Your task to perform on an android device: choose inbox layout in the gmail app Image 0: 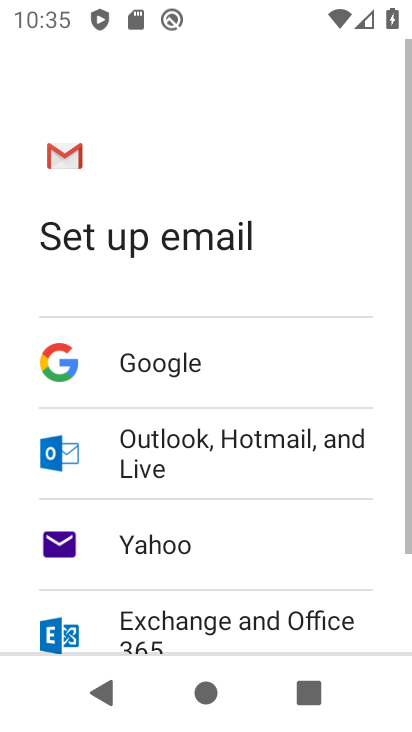
Step 0: press home button
Your task to perform on an android device: choose inbox layout in the gmail app Image 1: 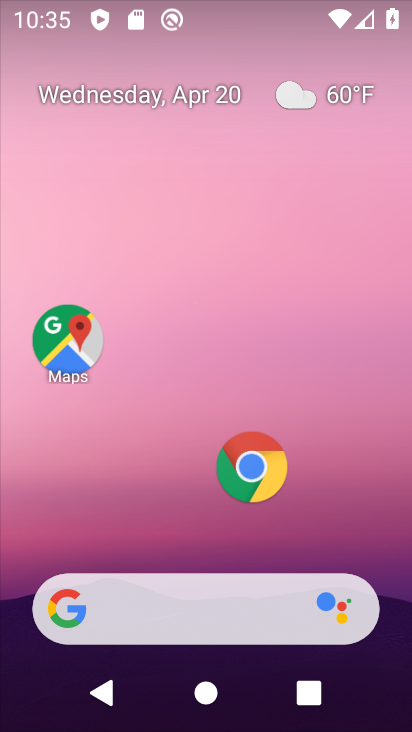
Step 1: drag from (274, 533) to (235, 74)
Your task to perform on an android device: choose inbox layout in the gmail app Image 2: 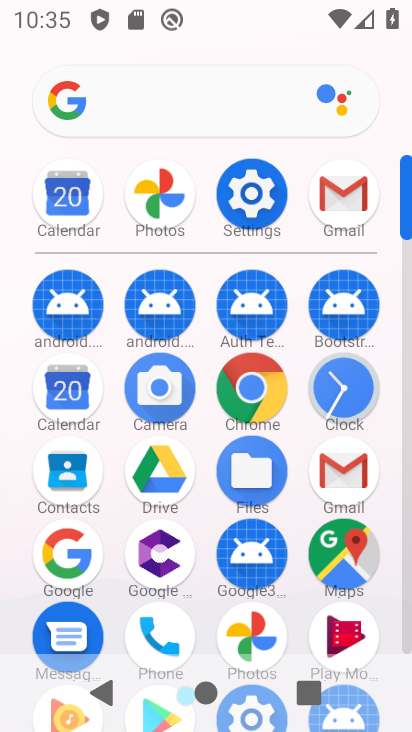
Step 2: click (338, 195)
Your task to perform on an android device: choose inbox layout in the gmail app Image 3: 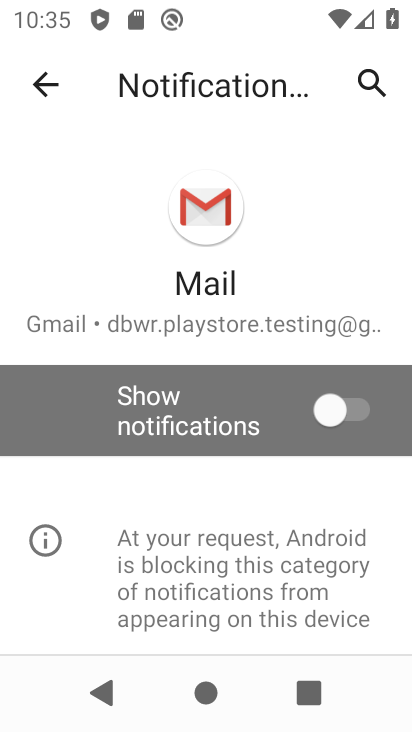
Step 3: click (30, 76)
Your task to perform on an android device: choose inbox layout in the gmail app Image 4: 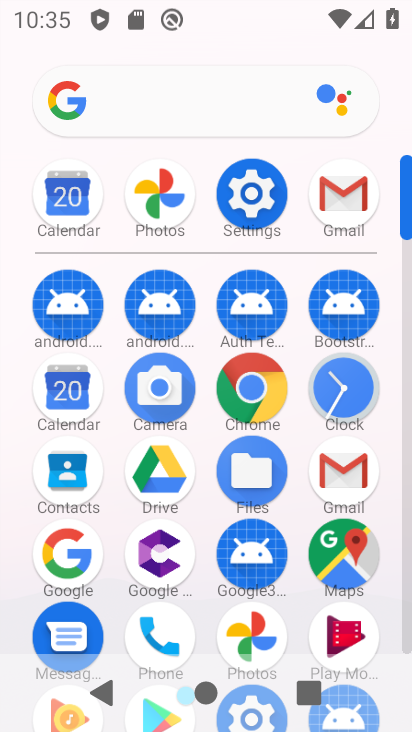
Step 4: click (353, 198)
Your task to perform on an android device: choose inbox layout in the gmail app Image 5: 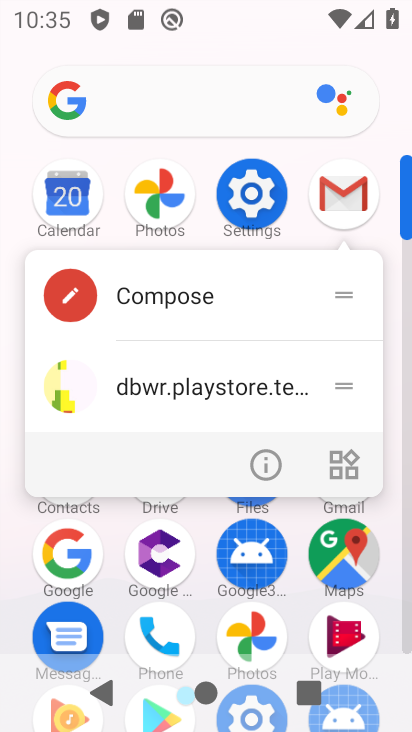
Step 5: click (353, 192)
Your task to perform on an android device: choose inbox layout in the gmail app Image 6: 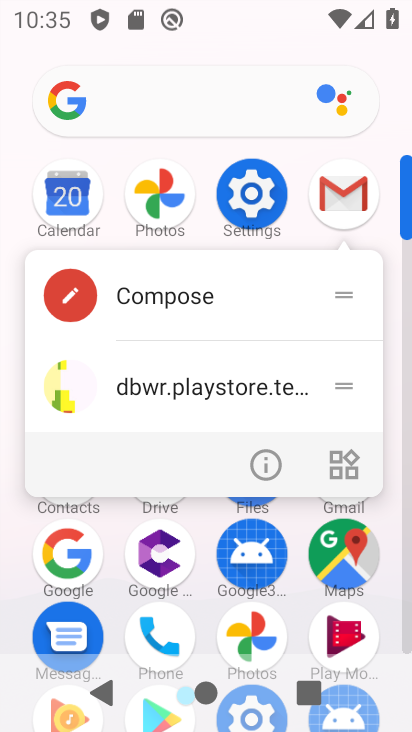
Step 6: click (353, 190)
Your task to perform on an android device: choose inbox layout in the gmail app Image 7: 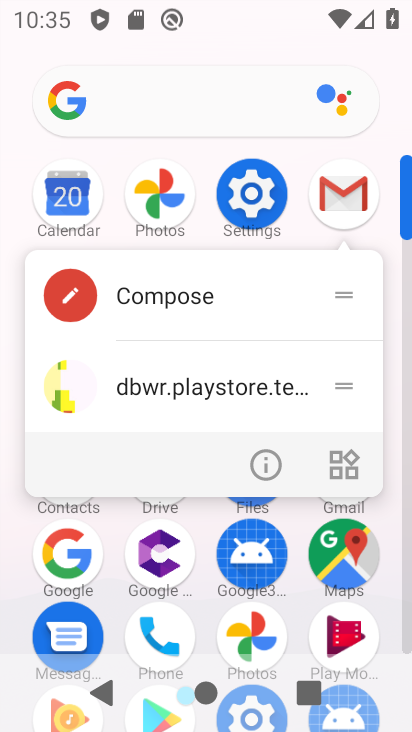
Step 7: click (353, 190)
Your task to perform on an android device: choose inbox layout in the gmail app Image 8: 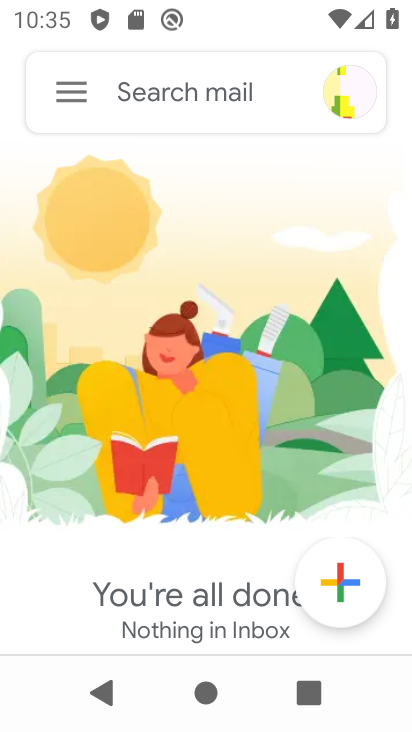
Step 8: click (75, 99)
Your task to perform on an android device: choose inbox layout in the gmail app Image 9: 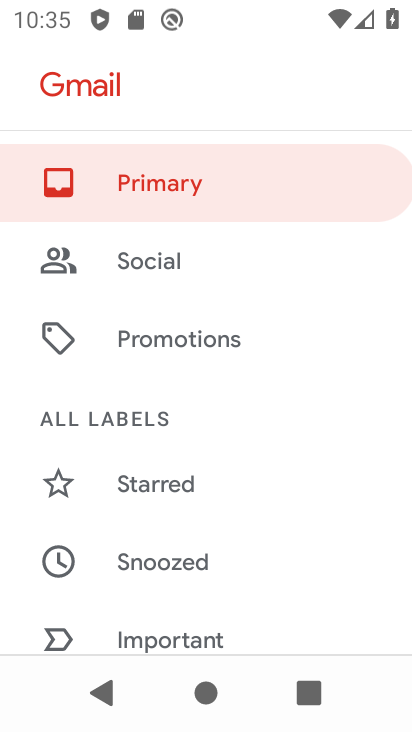
Step 9: drag from (203, 540) to (165, 374)
Your task to perform on an android device: choose inbox layout in the gmail app Image 10: 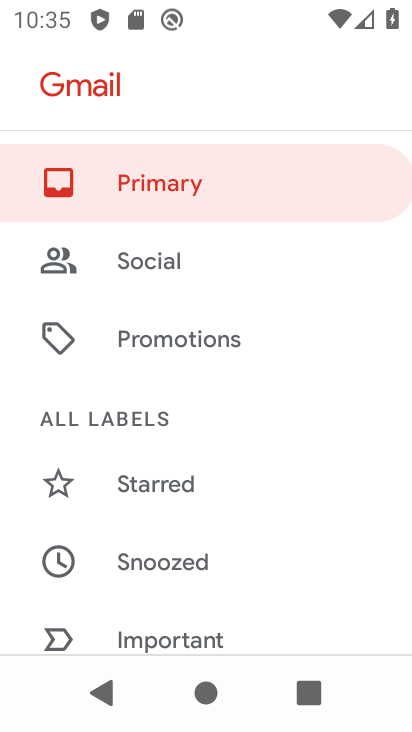
Step 10: drag from (168, 587) to (177, 388)
Your task to perform on an android device: choose inbox layout in the gmail app Image 11: 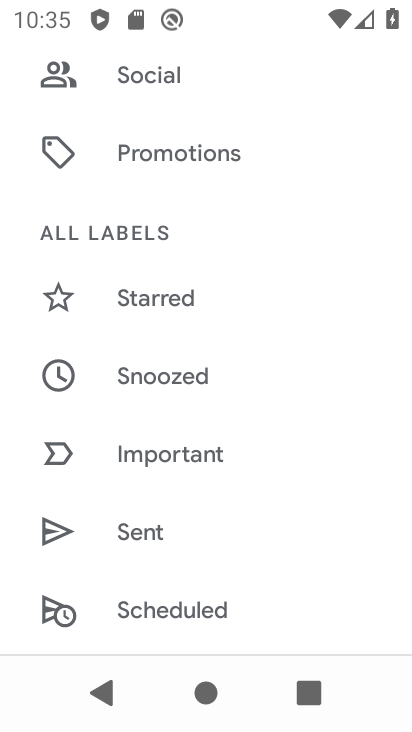
Step 11: drag from (206, 526) to (200, 450)
Your task to perform on an android device: choose inbox layout in the gmail app Image 12: 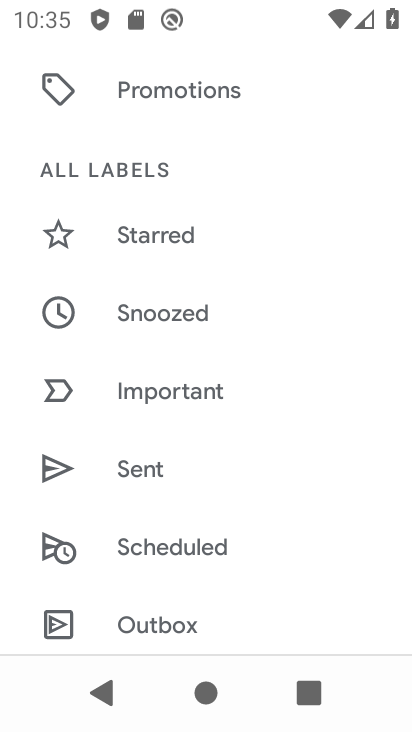
Step 12: drag from (206, 536) to (203, 449)
Your task to perform on an android device: choose inbox layout in the gmail app Image 13: 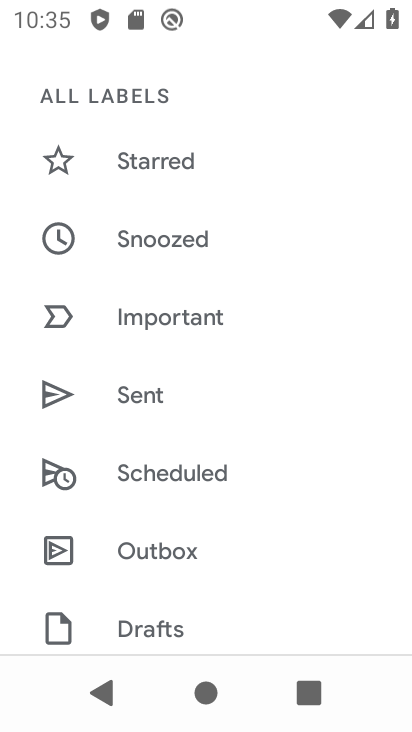
Step 13: drag from (220, 547) to (223, 449)
Your task to perform on an android device: choose inbox layout in the gmail app Image 14: 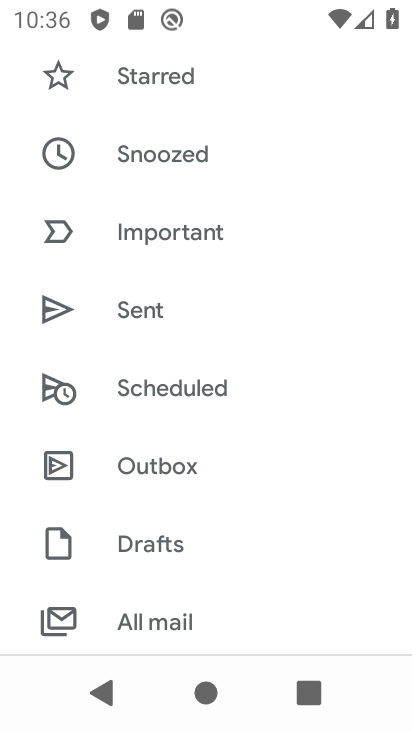
Step 14: drag from (251, 563) to (224, 467)
Your task to perform on an android device: choose inbox layout in the gmail app Image 15: 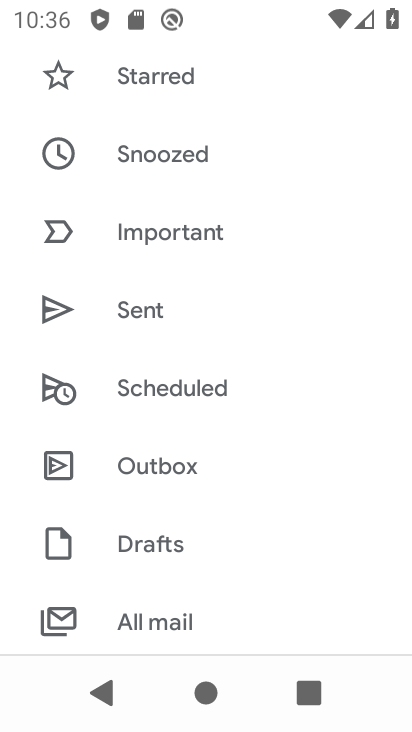
Step 15: drag from (246, 557) to (244, 487)
Your task to perform on an android device: choose inbox layout in the gmail app Image 16: 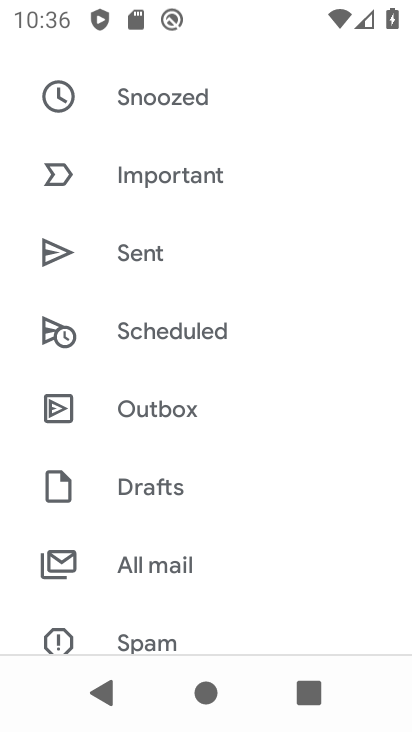
Step 16: drag from (257, 542) to (257, 462)
Your task to perform on an android device: choose inbox layout in the gmail app Image 17: 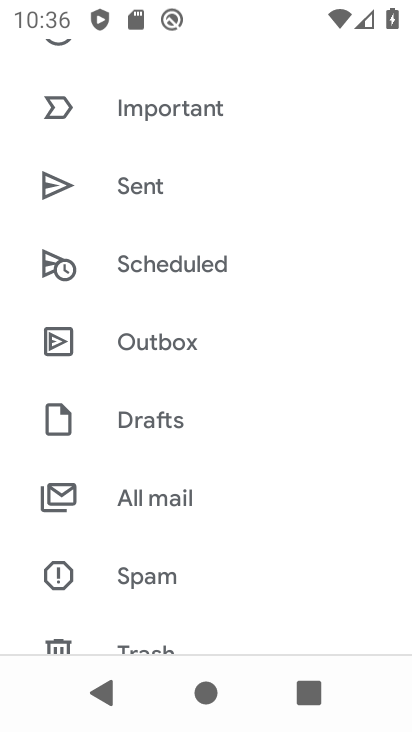
Step 17: drag from (256, 538) to (251, 446)
Your task to perform on an android device: choose inbox layout in the gmail app Image 18: 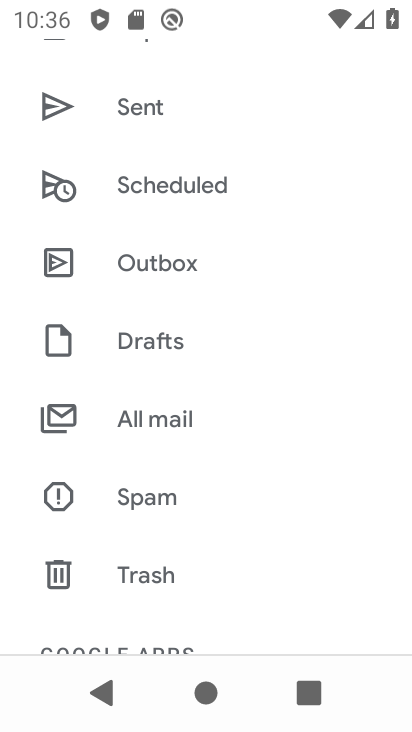
Step 18: drag from (245, 515) to (253, 443)
Your task to perform on an android device: choose inbox layout in the gmail app Image 19: 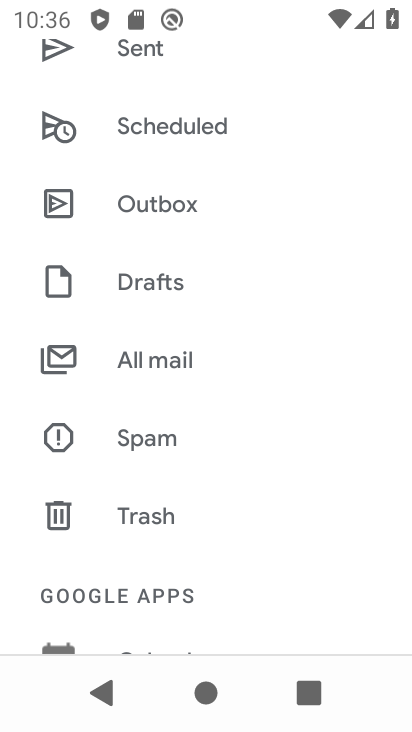
Step 19: drag from (253, 479) to (263, 419)
Your task to perform on an android device: choose inbox layout in the gmail app Image 20: 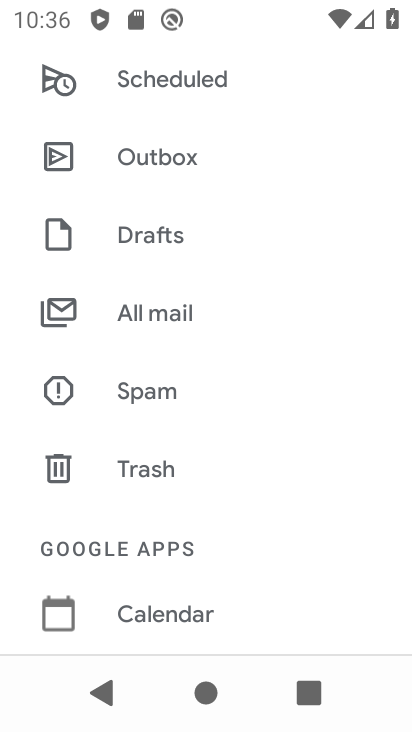
Step 20: drag from (242, 463) to (195, 297)
Your task to perform on an android device: choose inbox layout in the gmail app Image 21: 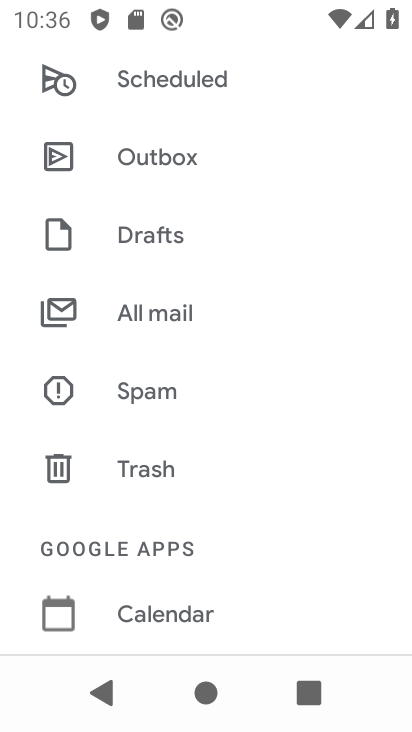
Step 21: drag from (214, 542) to (202, 433)
Your task to perform on an android device: choose inbox layout in the gmail app Image 22: 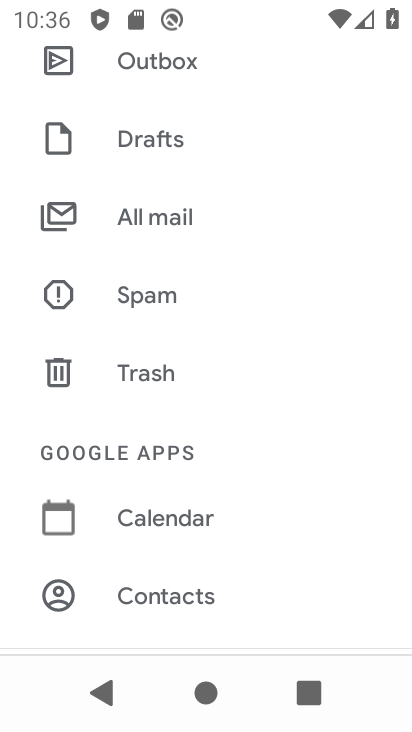
Step 22: drag from (200, 626) to (165, 432)
Your task to perform on an android device: choose inbox layout in the gmail app Image 23: 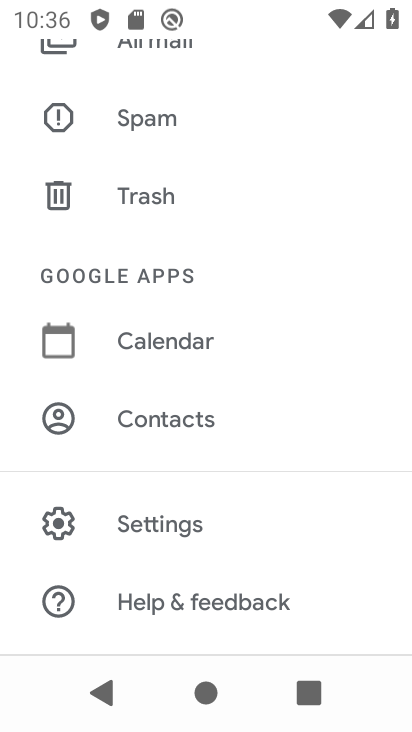
Step 23: click (192, 535)
Your task to perform on an android device: choose inbox layout in the gmail app Image 24: 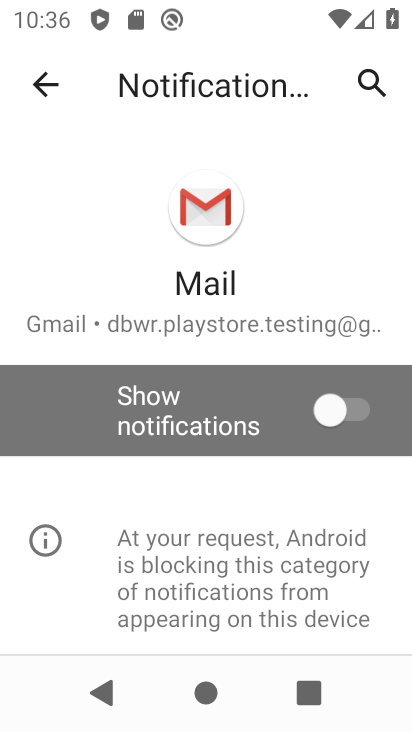
Step 24: click (24, 81)
Your task to perform on an android device: choose inbox layout in the gmail app Image 25: 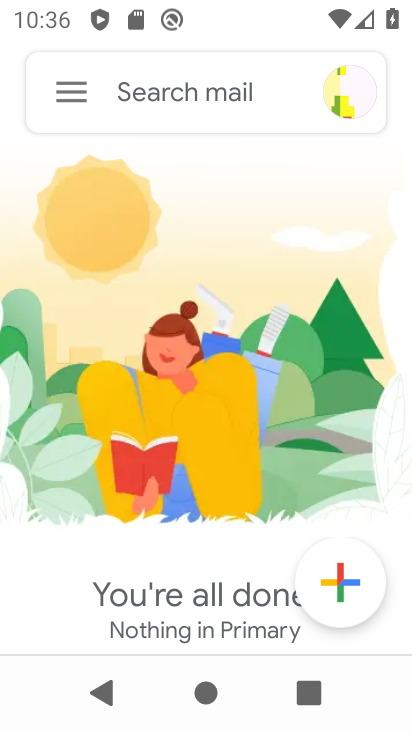
Step 25: click (71, 99)
Your task to perform on an android device: choose inbox layout in the gmail app Image 26: 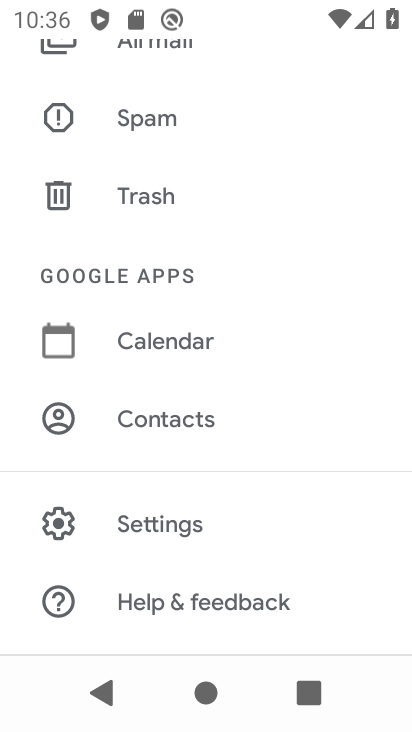
Step 26: click (244, 525)
Your task to perform on an android device: choose inbox layout in the gmail app Image 27: 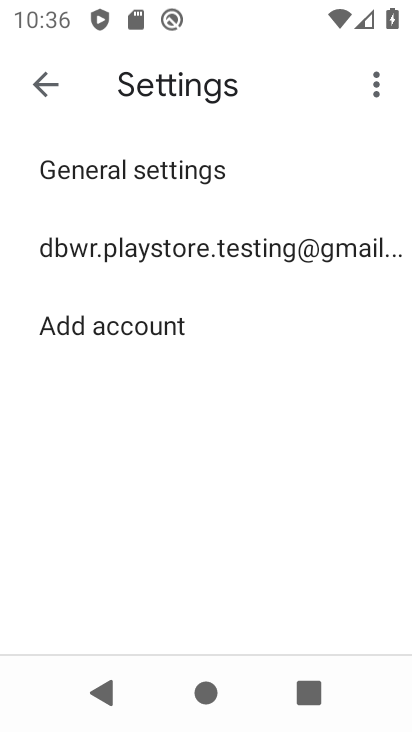
Step 27: click (130, 231)
Your task to perform on an android device: choose inbox layout in the gmail app Image 28: 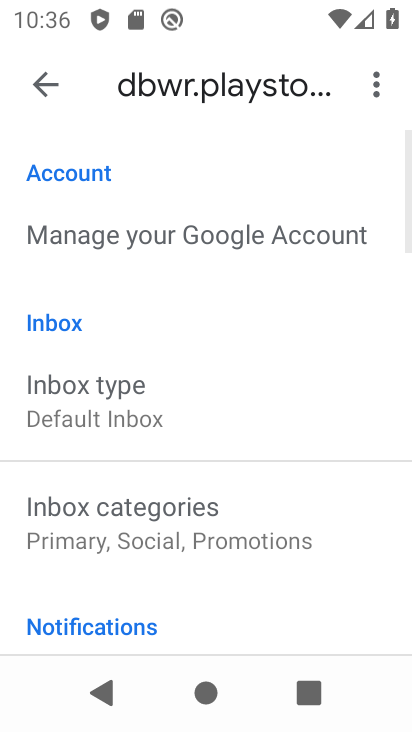
Step 28: click (179, 434)
Your task to perform on an android device: choose inbox layout in the gmail app Image 29: 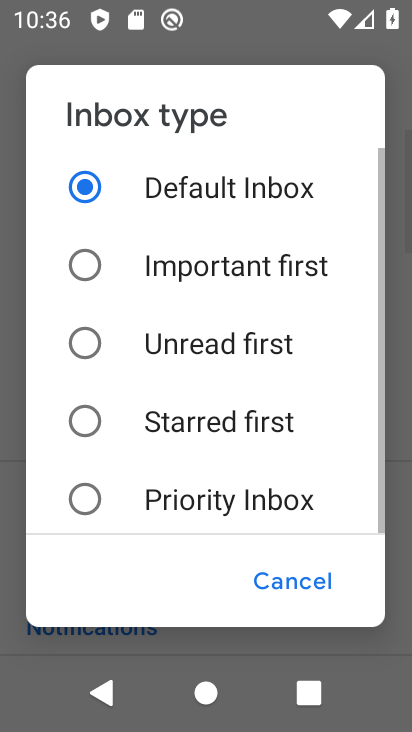
Step 29: click (174, 271)
Your task to perform on an android device: choose inbox layout in the gmail app Image 30: 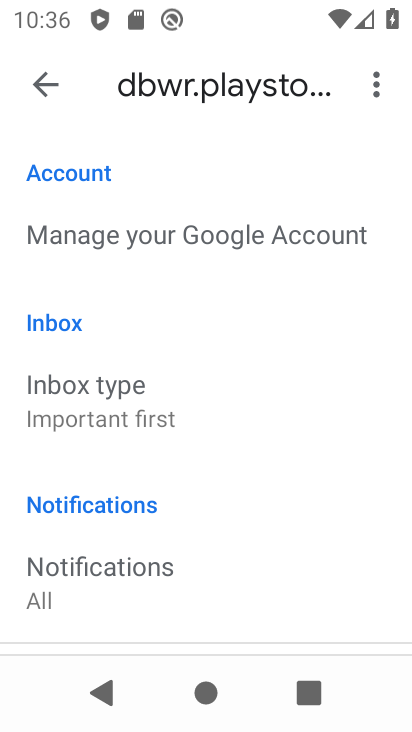
Step 30: task complete